Your task to perform on an android device: Search for "dell xps" on walmart, select the first entry, and add it to the cart. Image 0: 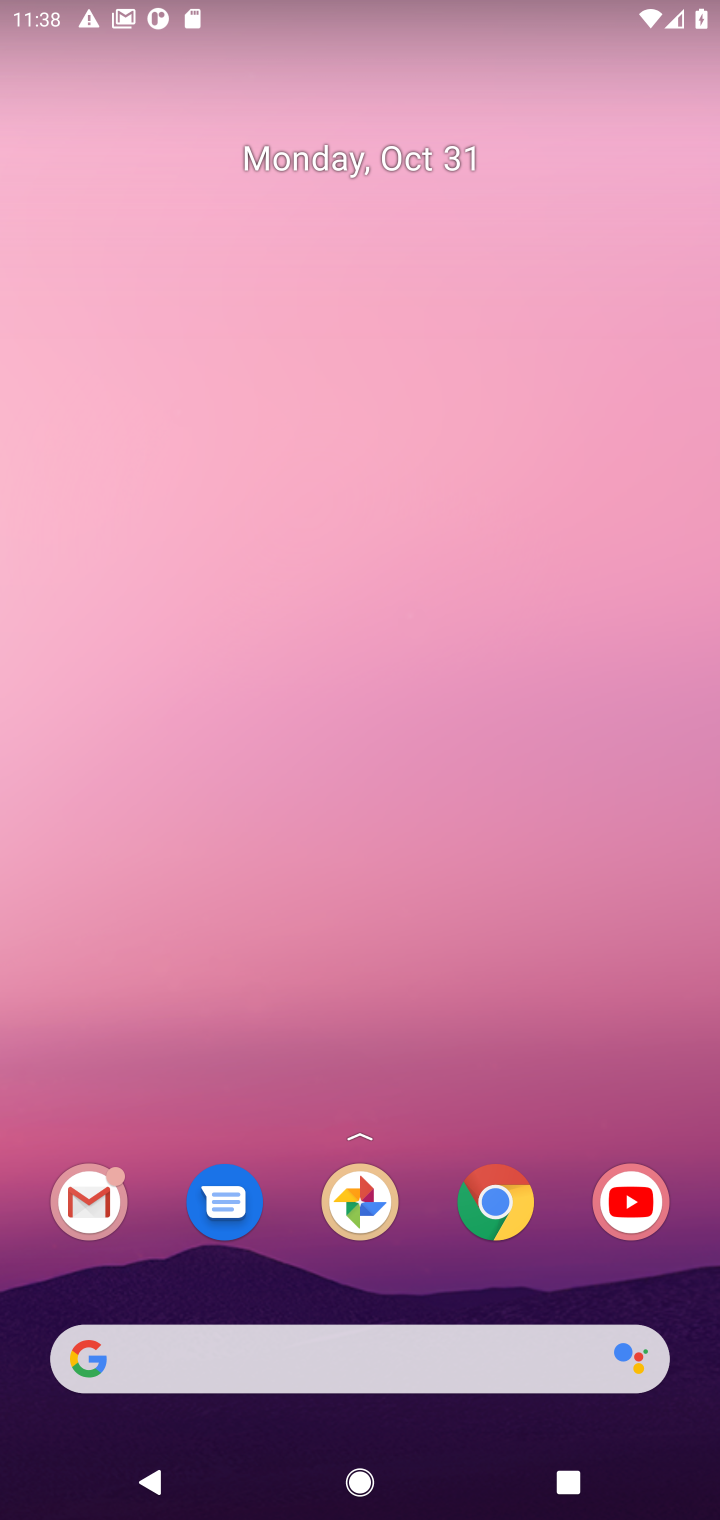
Step 0: click (493, 1215)
Your task to perform on an android device: Search for "dell xps" on walmart, select the first entry, and add it to the cart. Image 1: 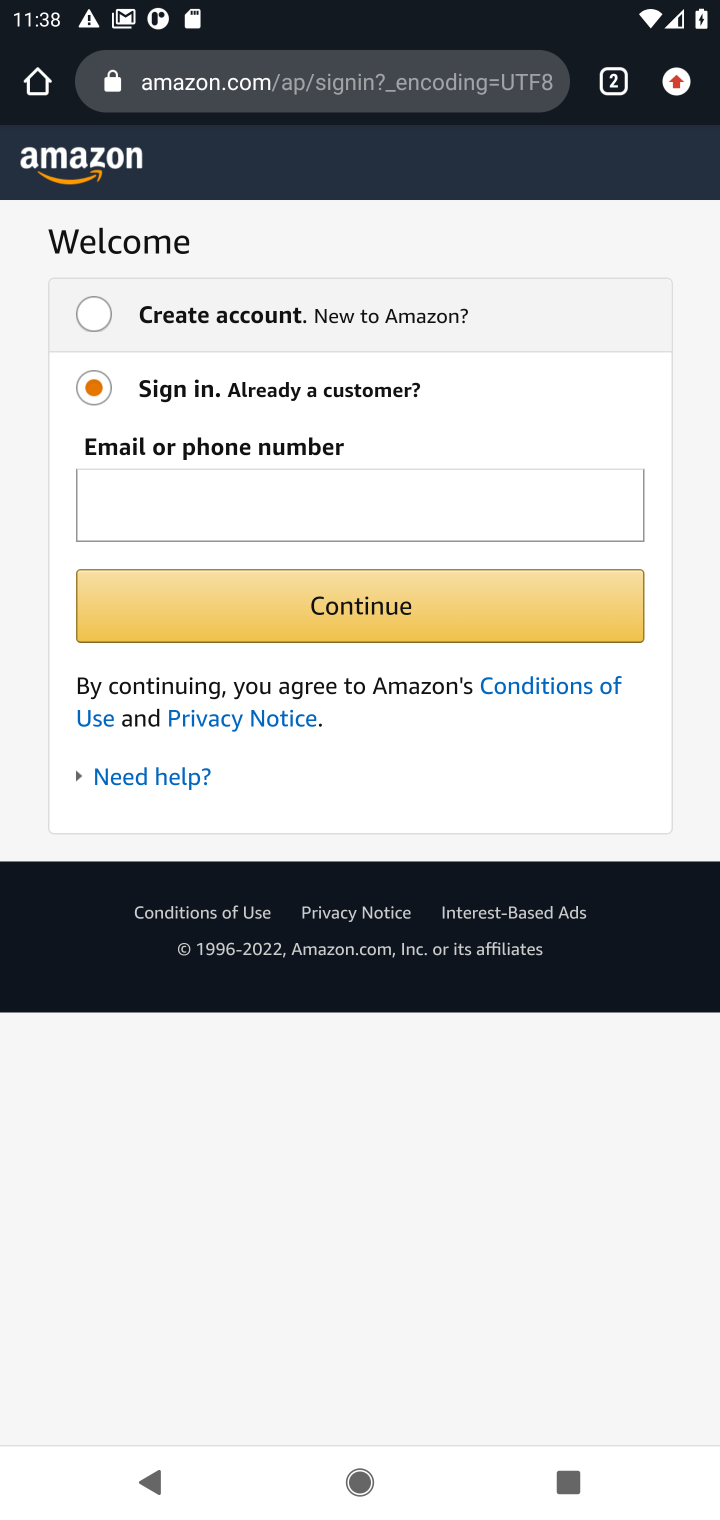
Step 1: click (603, 75)
Your task to perform on an android device: Search for "dell xps" on walmart, select the first entry, and add it to the cart. Image 2: 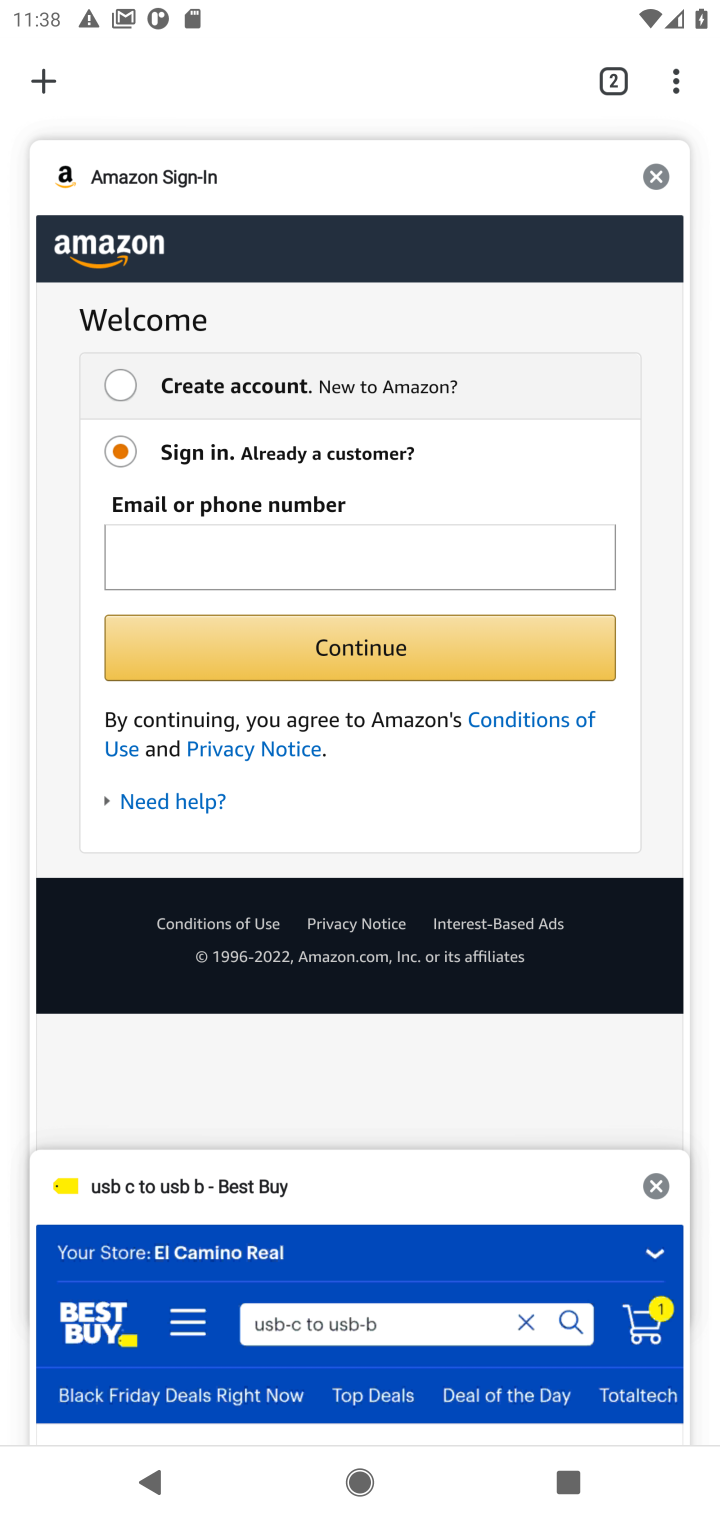
Step 2: click (46, 84)
Your task to perform on an android device: Search for "dell xps" on walmart, select the first entry, and add it to the cart. Image 3: 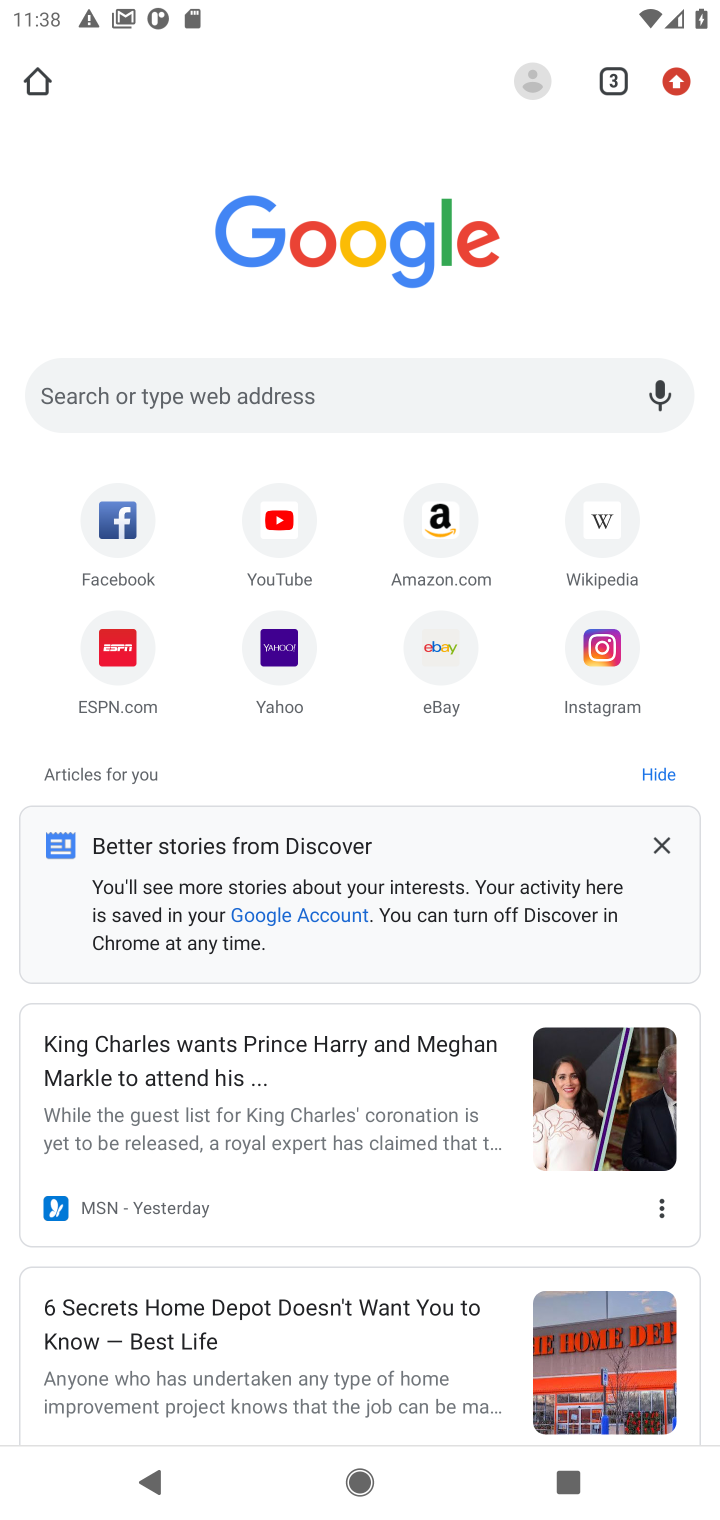
Step 3: click (272, 395)
Your task to perform on an android device: Search for "dell xps" on walmart, select the first entry, and add it to the cart. Image 4: 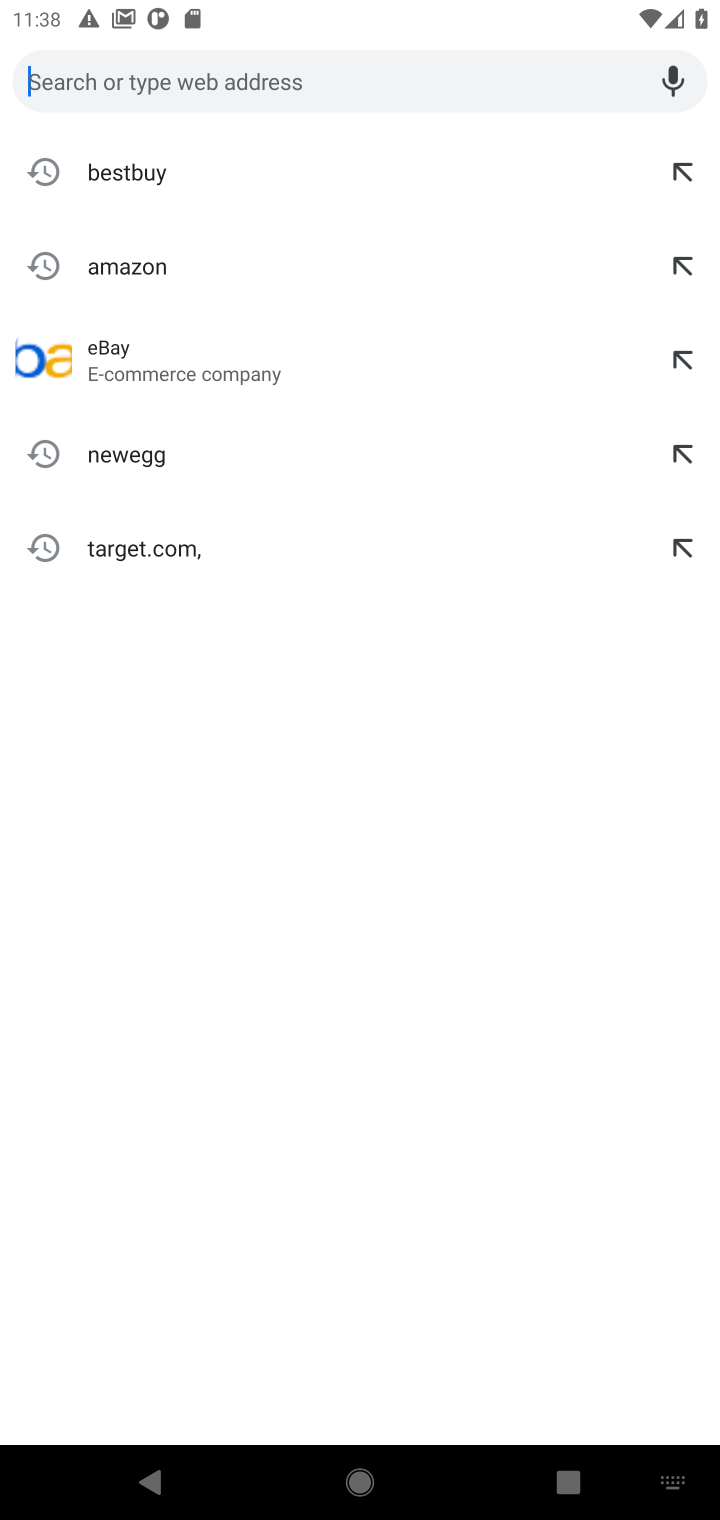
Step 4: type "walmart"
Your task to perform on an android device: Search for "dell xps" on walmart, select the first entry, and add it to the cart. Image 5: 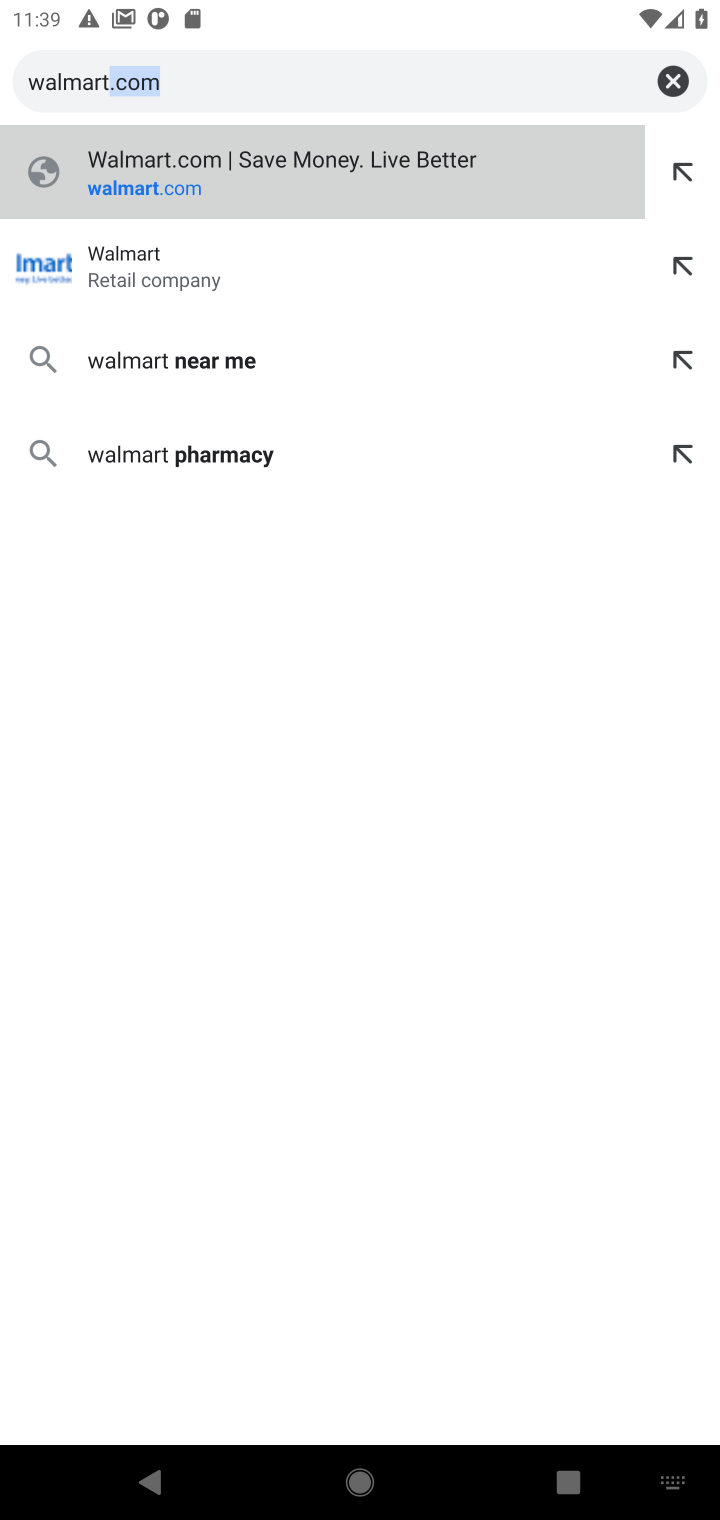
Step 5: click (370, 182)
Your task to perform on an android device: Search for "dell xps" on walmart, select the first entry, and add it to the cart. Image 6: 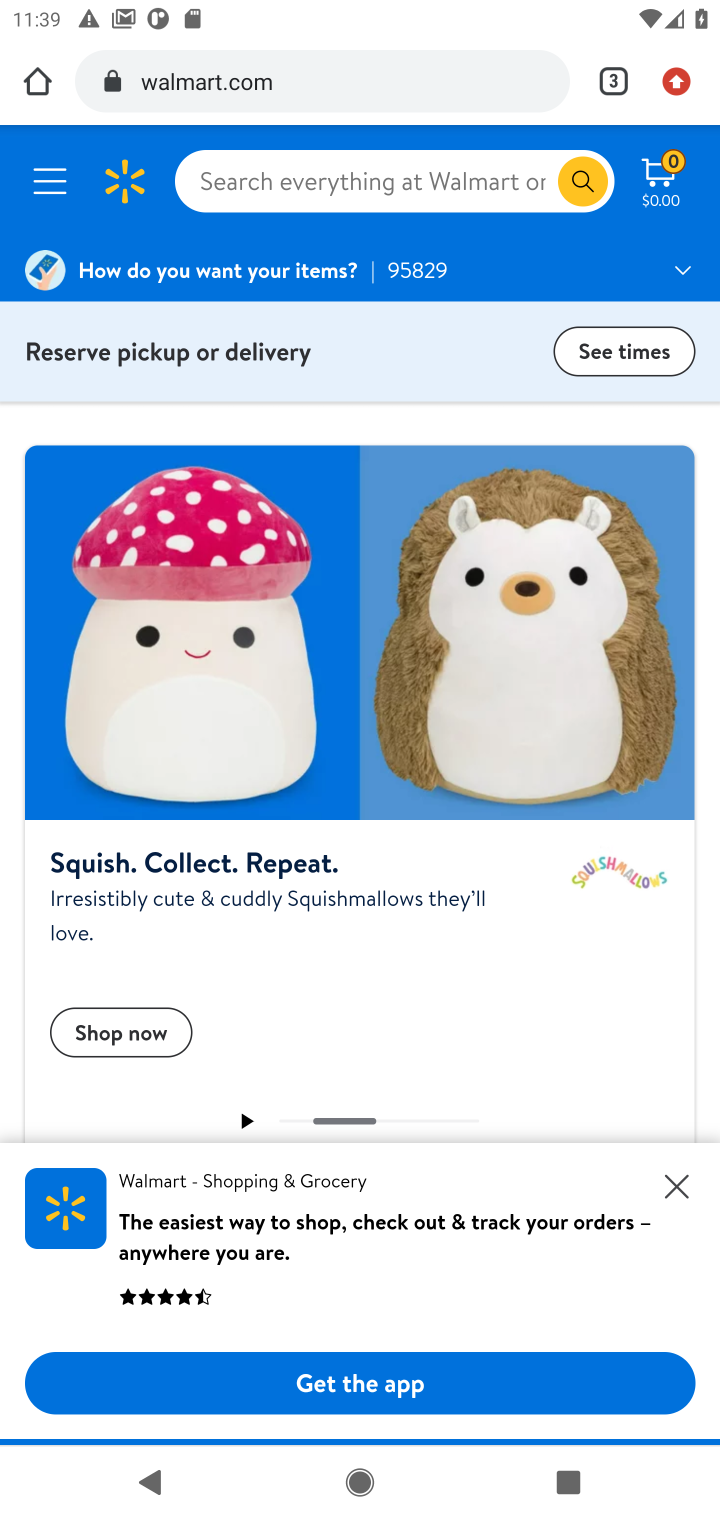
Step 6: click (236, 174)
Your task to perform on an android device: Search for "dell xps" on walmart, select the first entry, and add it to the cart. Image 7: 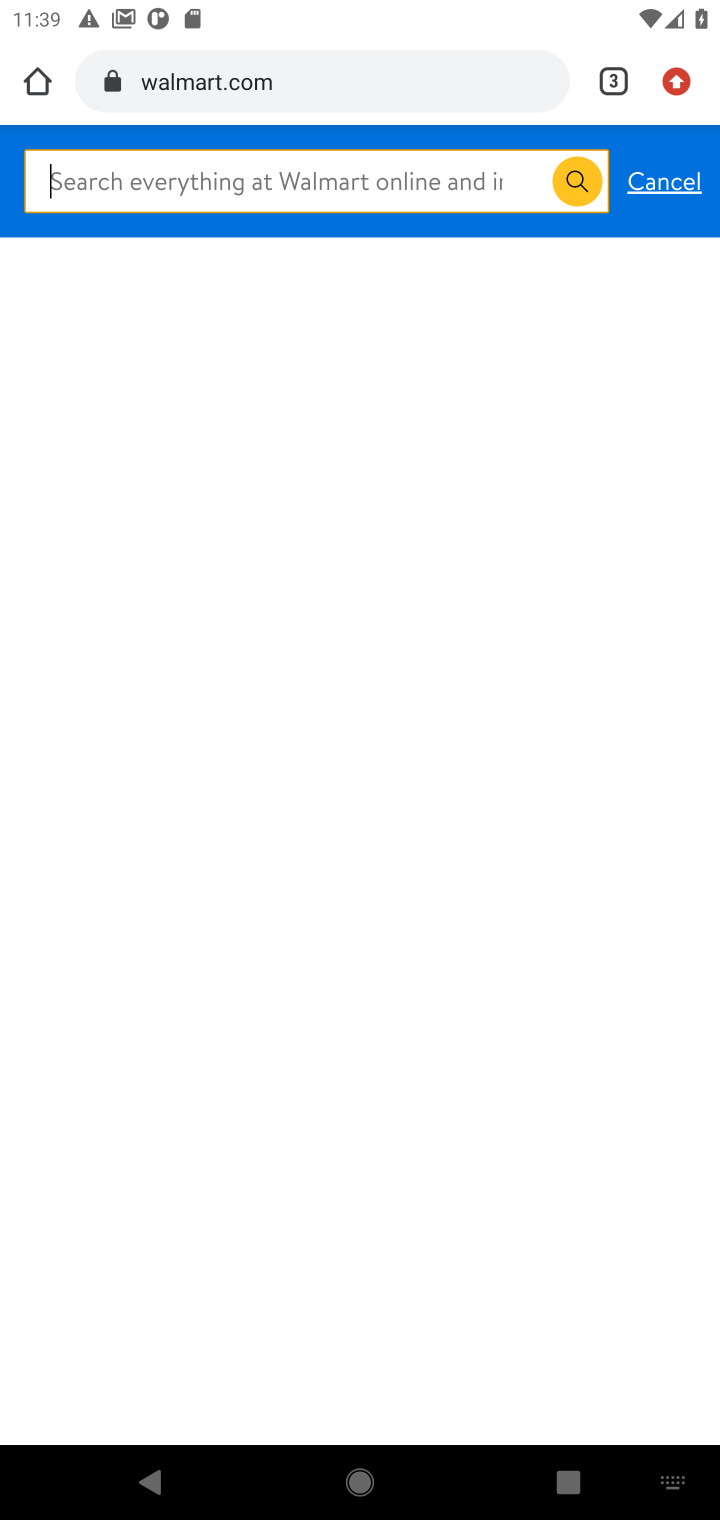
Step 7: type "dell xps"
Your task to perform on an android device: Search for "dell xps" on walmart, select the first entry, and add it to the cart. Image 8: 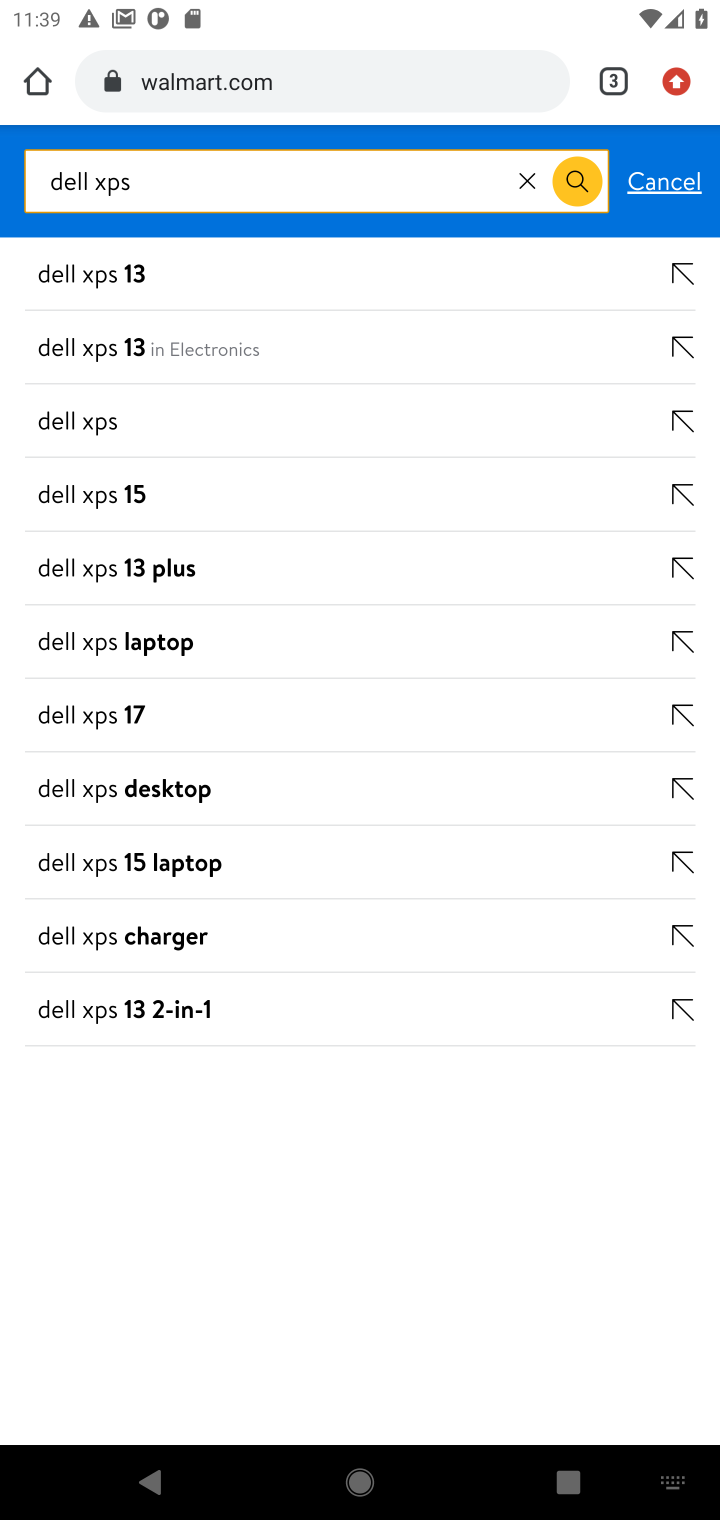
Step 8: click (126, 349)
Your task to perform on an android device: Search for "dell xps" on walmart, select the first entry, and add it to the cart. Image 9: 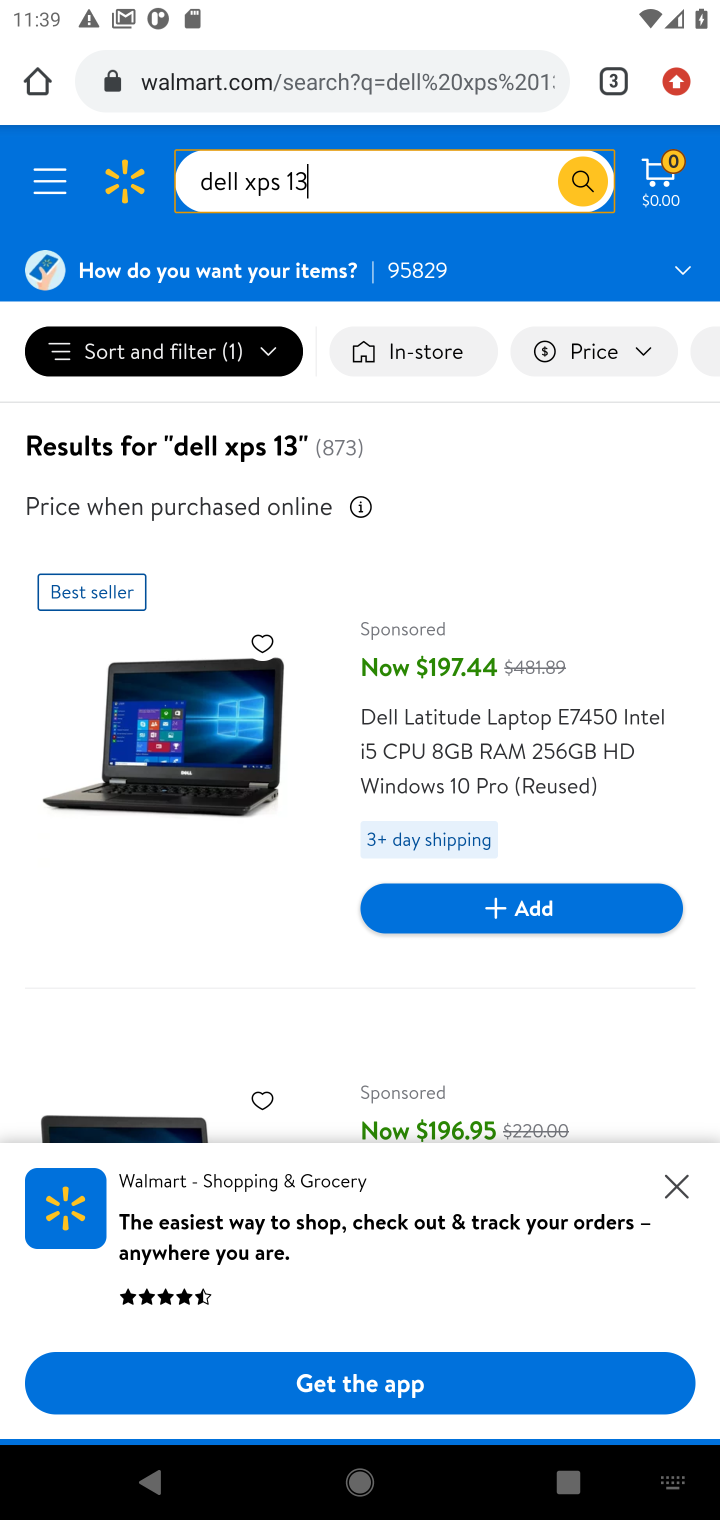
Step 9: click (674, 1185)
Your task to perform on an android device: Search for "dell xps" on walmart, select the first entry, and add it to the cart. Image 10: 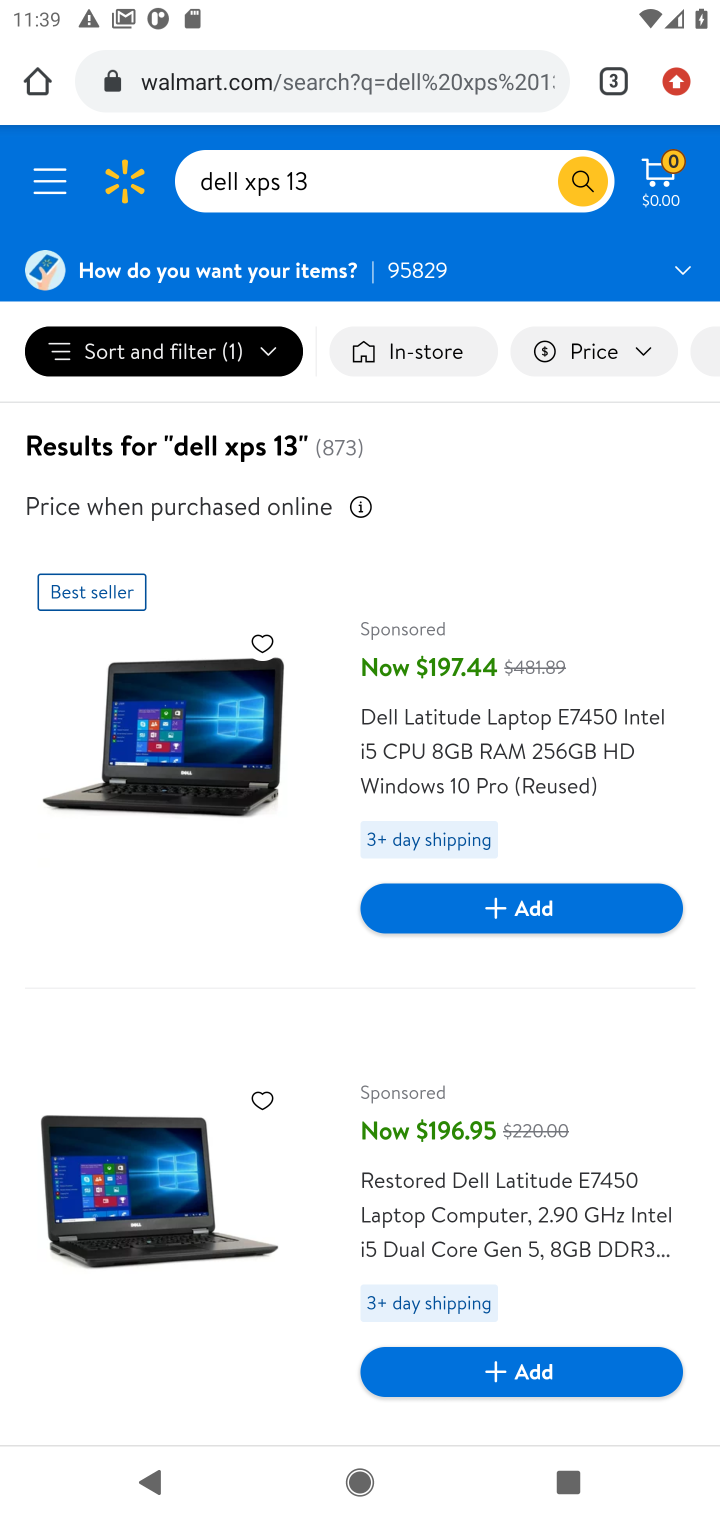
Step 10: click (514, 897)
Your task to perform on an android device: Search for "dell xps" on walmart, select the first entry, and add it to the cart. Image 11: 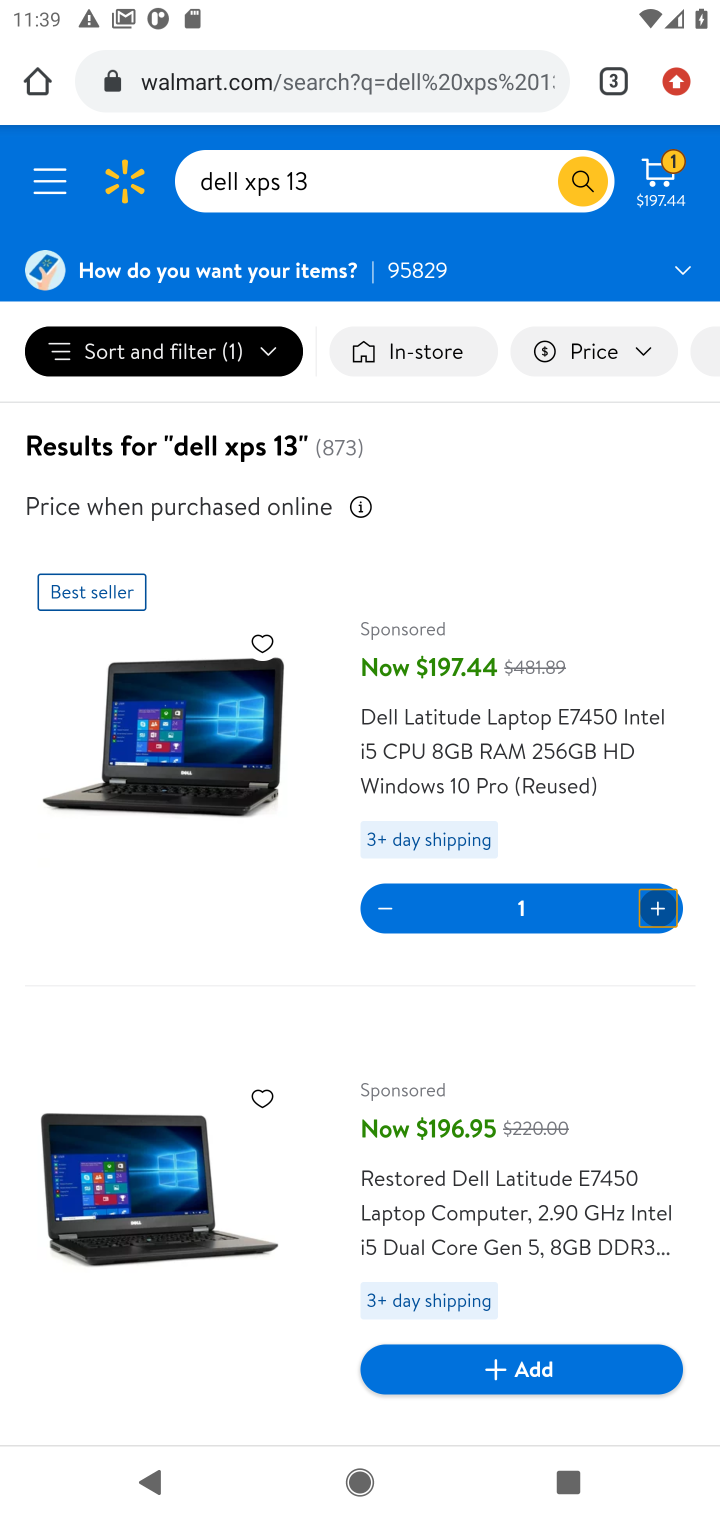
Step 11: task complete